Your task to perform on an android device: toggle priority inbox in the gmail app Image 0: 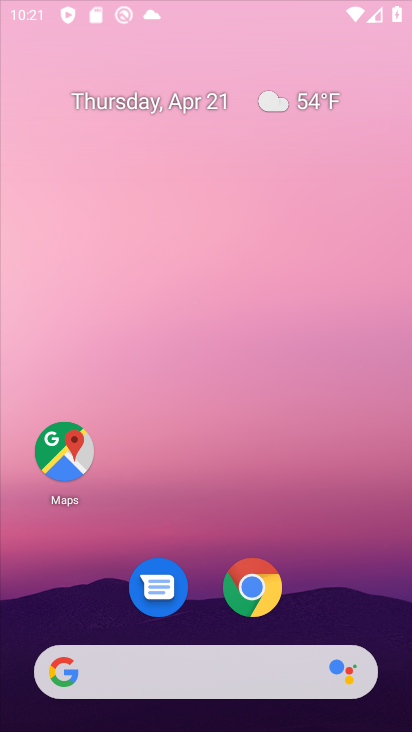
Step 0: click (271, 589)
Your task to perform on an android device: toggle priority inbox in the gmail app Image 1: 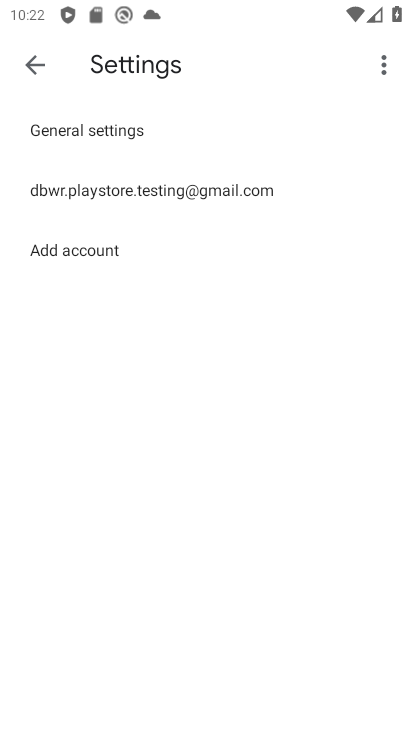
Step 1: click (178, 186)
Your task to perform on an android device: toggle priority inbox in the gmail app Image 2: 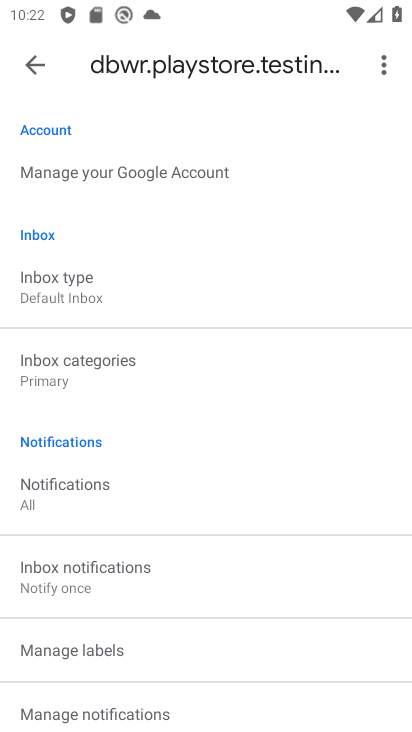
Step 2: click (72, 287)
Your task to perform on an android device: toggle priority inbox in the gmail app Image 3: 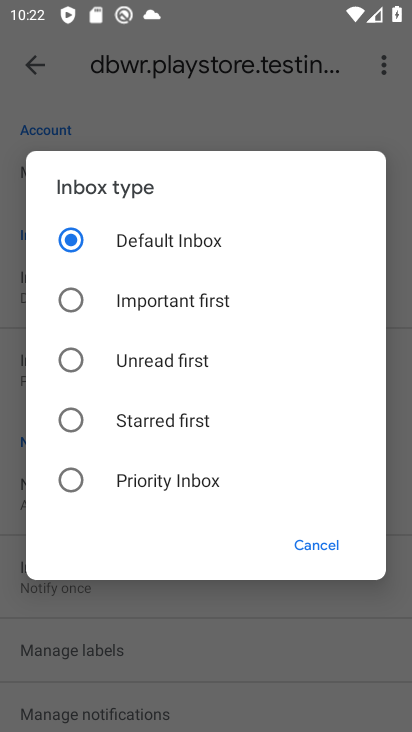
Step 3: click (134, 478)
Your task to perform on an android device: toggle priority inbox in the gmail app Image 4: 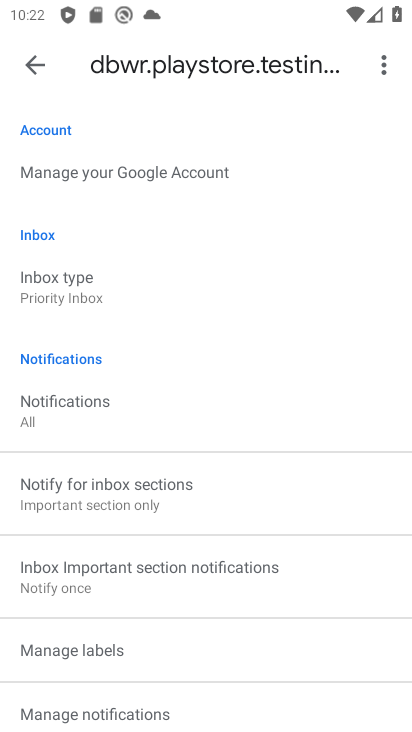
Step 4: task complete